Your task to perform on an android device: visit the assistant section in the google photos Image 0: 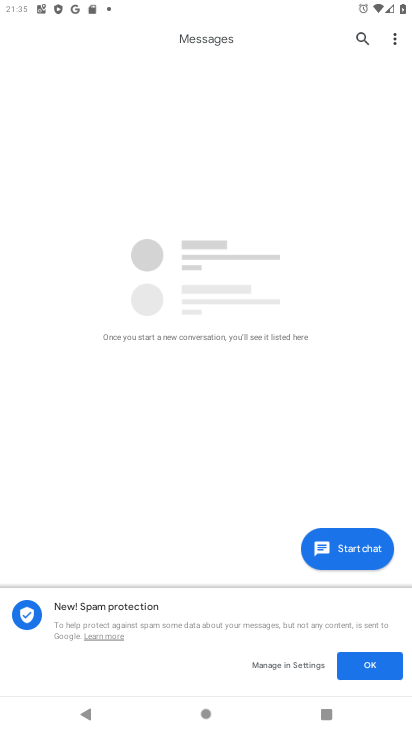
Step 0: press home button
Your task to perform on an android device: visit the assistant section in the google photos Image 1: 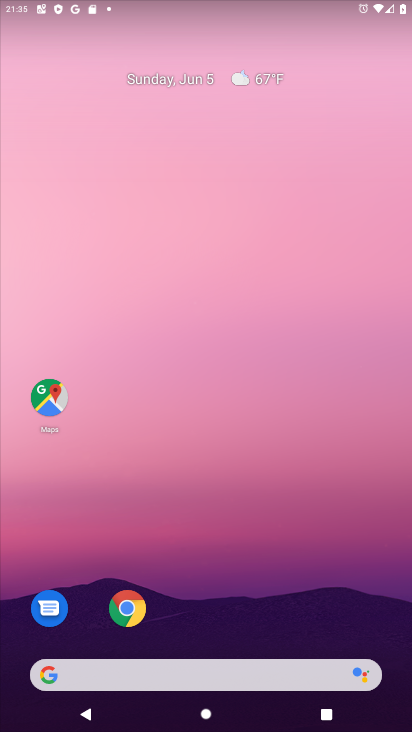
Step 1: drag from (11, 618) to (297, 115)
Your task to perform on an android device: visit the assistant section in the google photos Image 2: 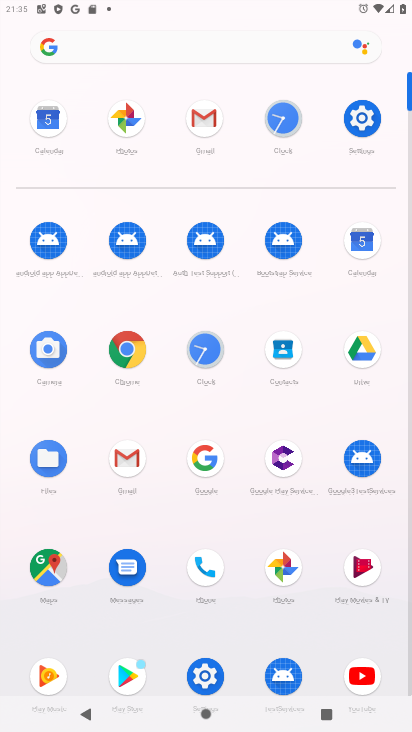
Step 2: click (278, 555)
Your task to perform on an android device: visit the assistant section in the google photos Image 3: 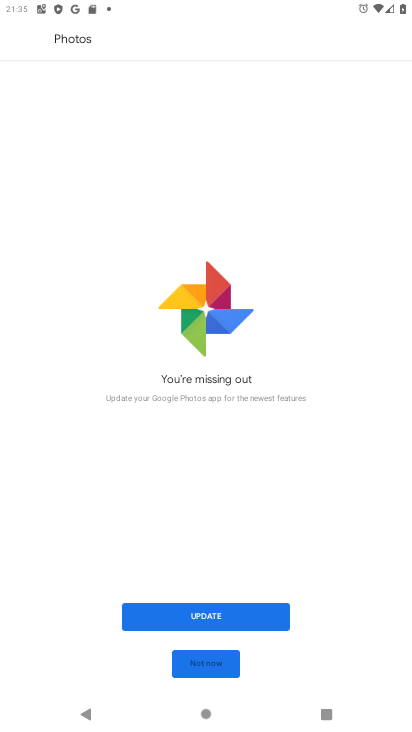
Step 3: click (206, 667)
Your task to perform on an android device: visit the assistant section in the google photos Image 4: 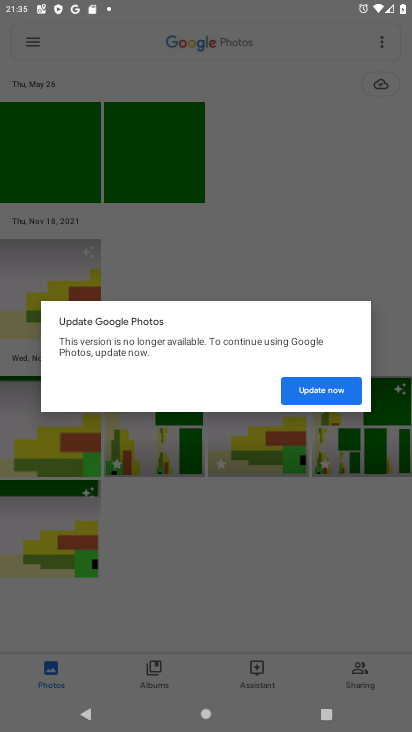
Step 4: click (335, 388)
Your task to perform on an android device: visit the assistant section in the google photos Image 5: 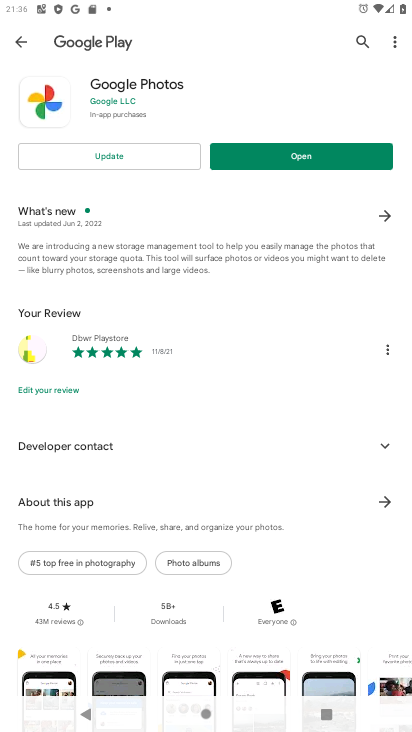
Step 5: click (236, 152)
Your task to perform on an android device: visit the assistant section in the google photos Image 6: 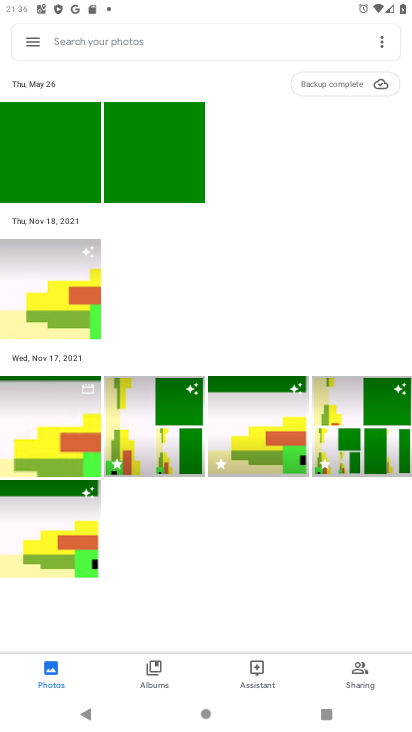
Step 6: click (249, 678)
Your task to perform on an android device: visit the assistant section in the google photos Image 7: 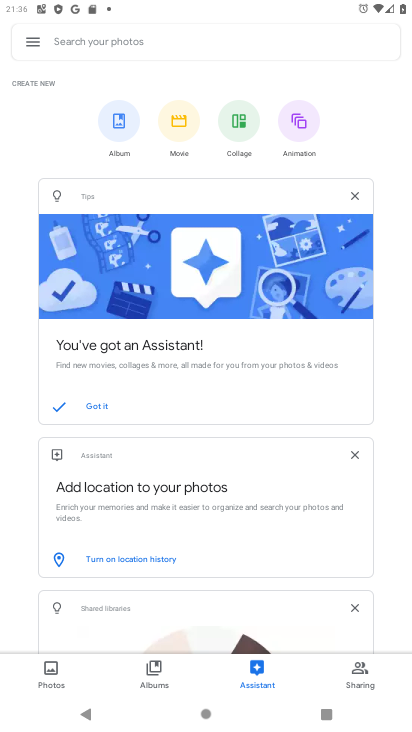
Step 7: task complete